Your task to perform on an android device: Go to Android settings Image 0: 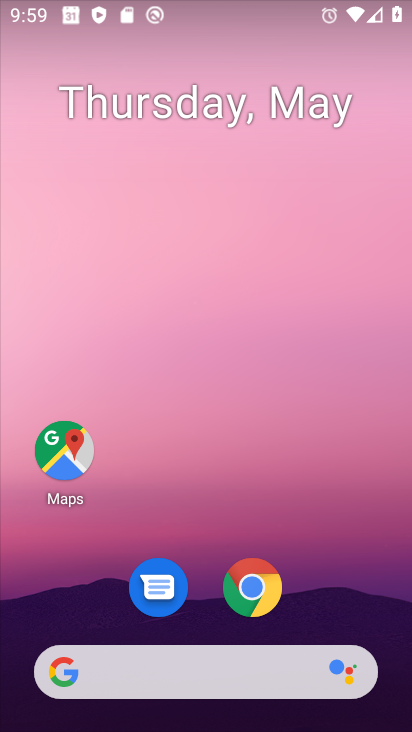
Step 0: drag from (373, 590) to (209, 52)
Your task to perform on an android device: Go to Android settings Image 1: 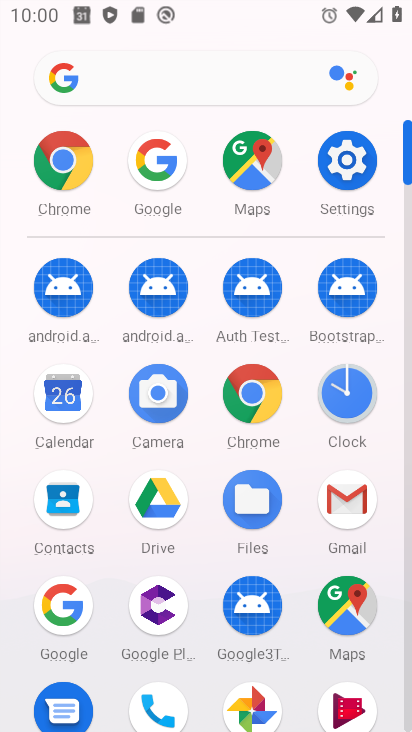
Step 1: click (364, 174)
Your task to perform on an android device: Go to Android settings Image 2: 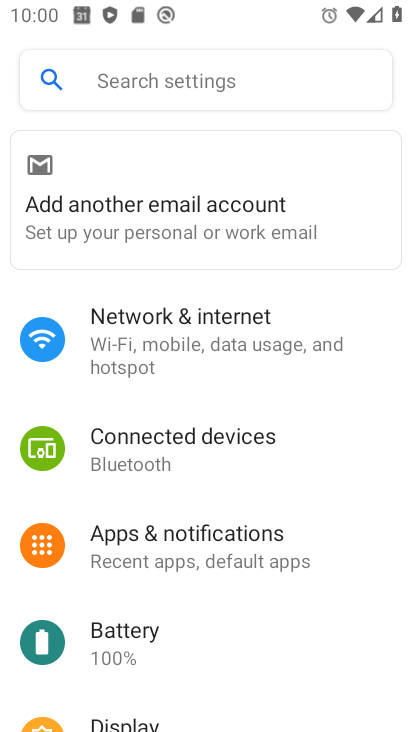
Step 2: drag from (116, 647) to (191, 117)
Your task to perform on an android device: Go to Android settings Image 3: 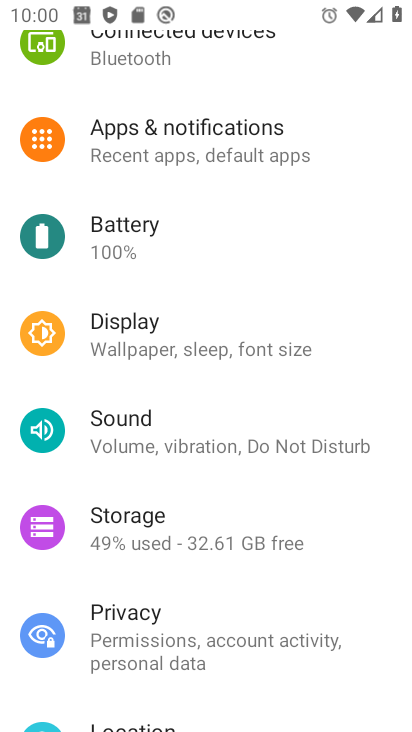
Step 3: drag from (47, 648) to (190, 77)
Your task to perform on an android device: Go to Android settings Image 4: 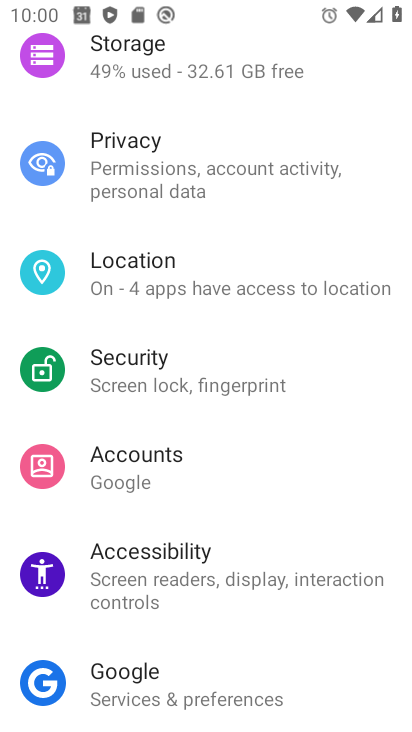
Step 4: drag from (112, 647) to (236, 135)
Your task to perform on an android device: Go to Android settings Image 5: 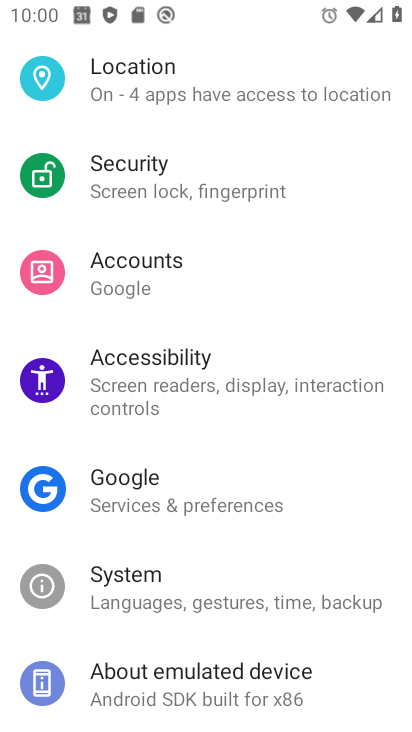
Step 5: click (190, 675)
Your task to perform on an android device: Go to Android settings Image 6: 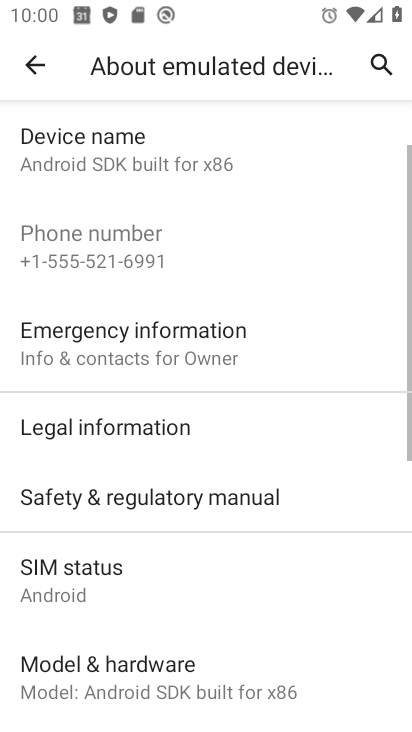
Step 6: drag from (155, 614) to (289, 96)
Your task to perform on an android device: Go to Android settings Image 7: 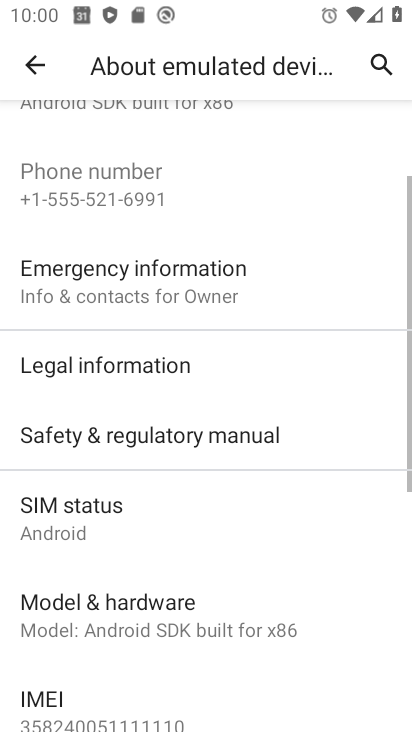
Step 7: drag from (90, 632) to (193, 147)
Your task to perform on an android device: Go to Android settings Image 8: 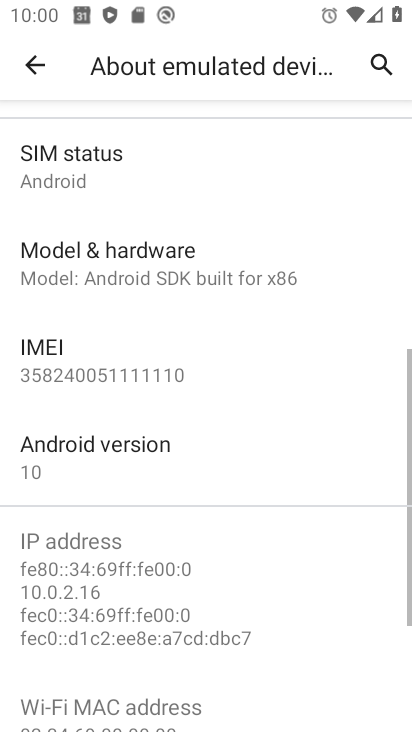
Step 8: click (133, 449)
Your task to perform on an android device: Go to Android settings Image 9: 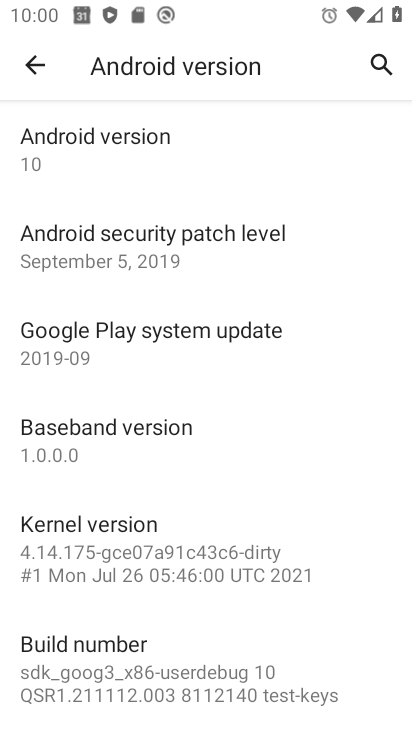
Step 9: task complete